Your task to perform on an android device: turn on bluetooth scan Image 0: 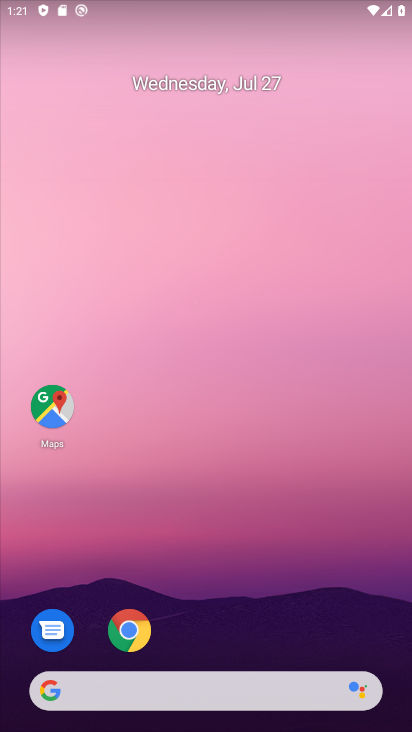
Step 0: drag from (366, 621) to (335, 108)
Your task to perform on an android device: turn on bluetooth scan Image 1: 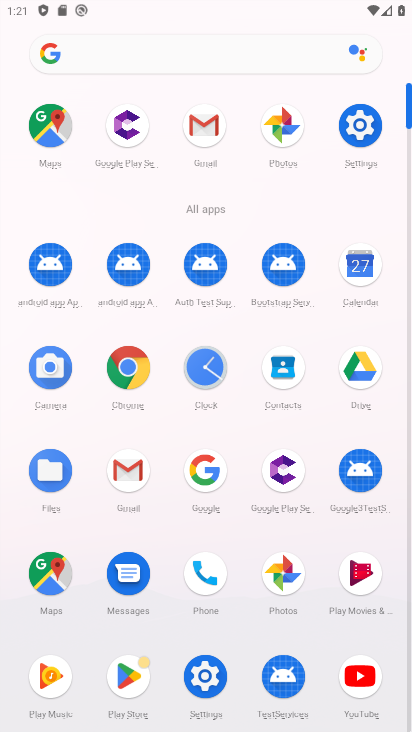
Step 1: click (207, 677)
Your task to perform on an android device: turn on bluetooth scan Image 2: 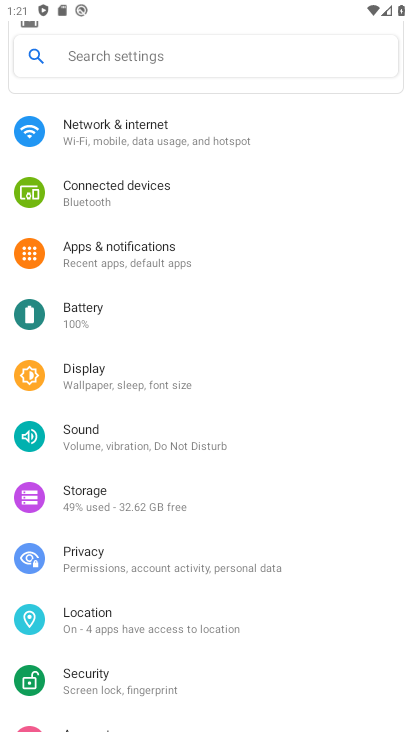
Step 2: click (103, 609)
Your task to perform on an android device: turn on bluetooth scan Image 3: 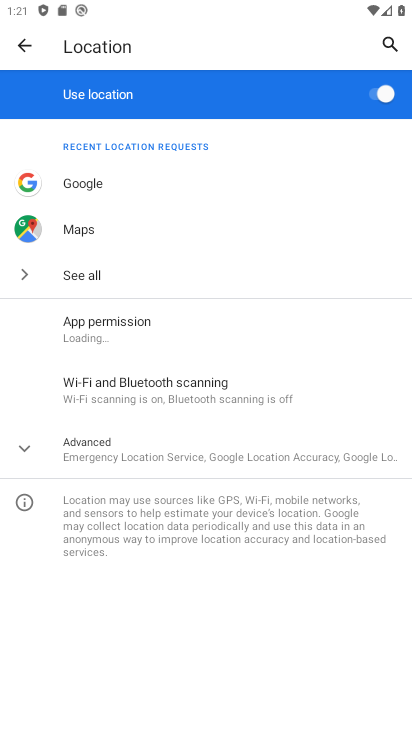
Step 3: click (113, 382)
Your task to perform on an android device: turn on bluetooth scan Image 4: 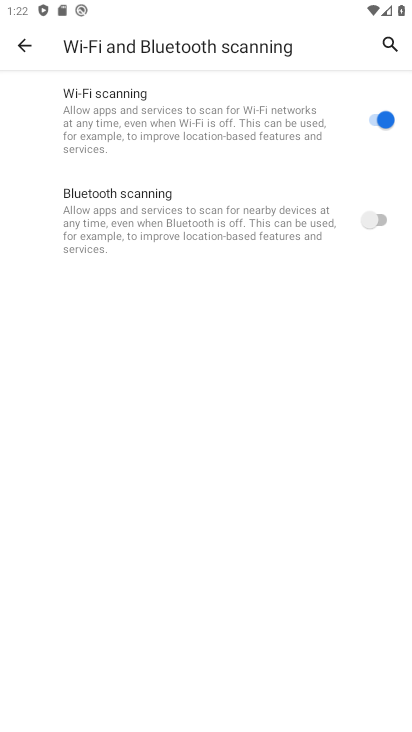
Step 4: click (384, 216)
Your task to perform on an android device: turn on bluetooth scan Image 5: 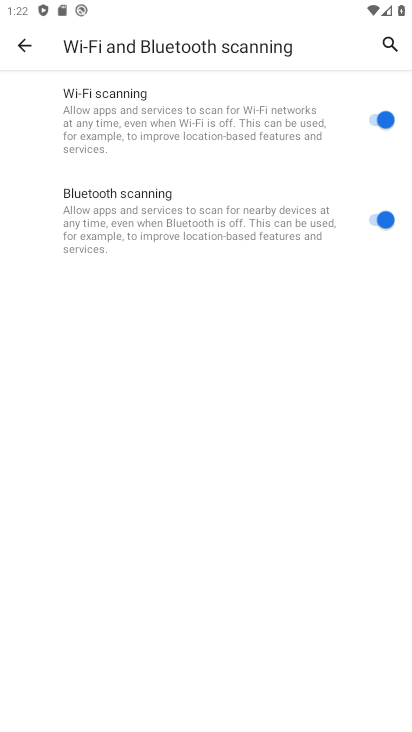
Step 5: task complete